Your task to perform on an android device: Open settings Image 0: 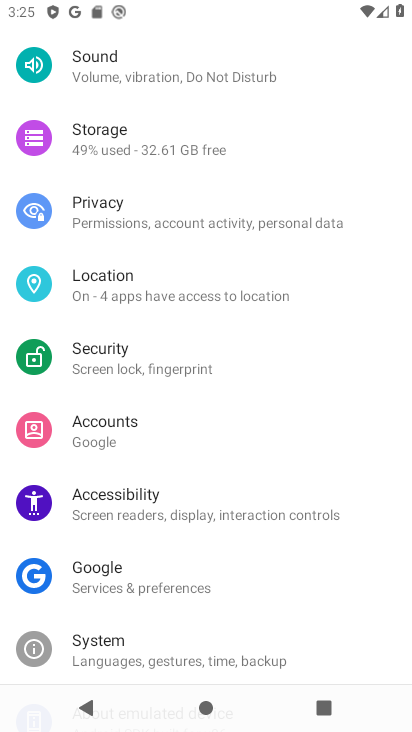
Step 0: press home button
Your task to perform on an android device: Open settings Image 1: 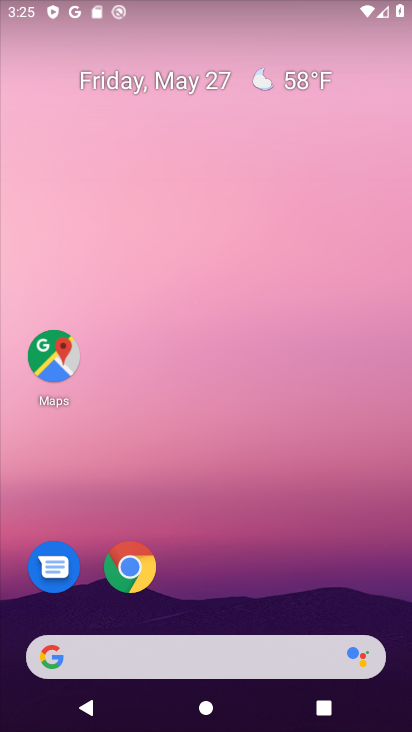
Step 1: drag from (225, 619) to (267, 25)
Your task to perform on an android device: Open settings Image 2: 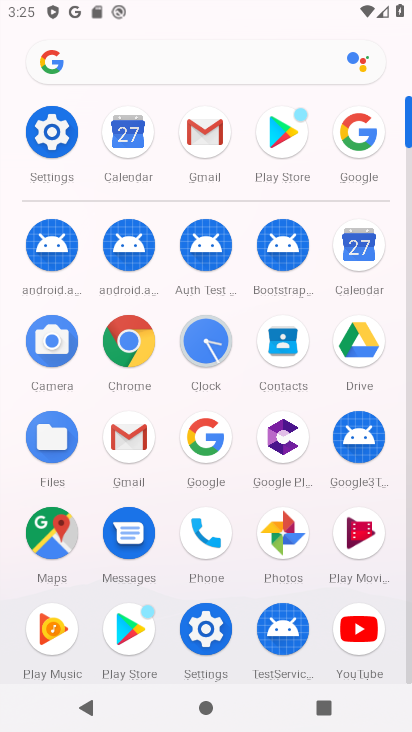
Step 2: click (49, 120)
Your task to perform on an android device: Open settings Image 3: 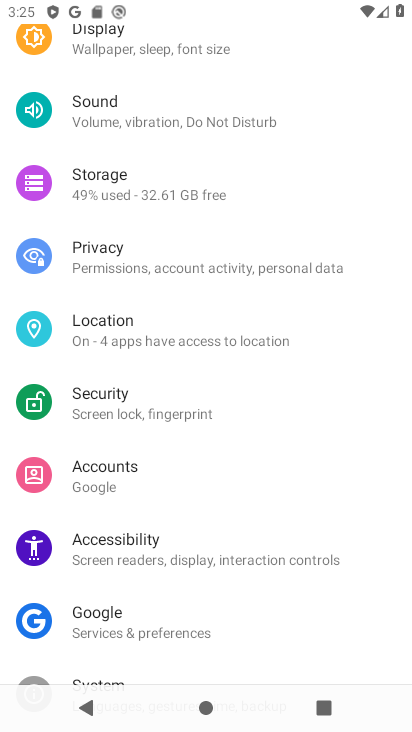
Step 3: task complete